Your task to perform on an android device: Show me popular videos on Youtube Image 0: 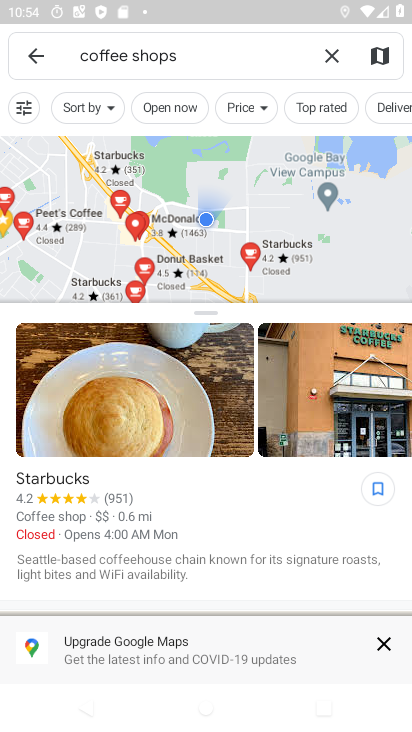
Step 0: press home button
Your task to perform on an android device: Show me popular videos on Youtube Image 1: 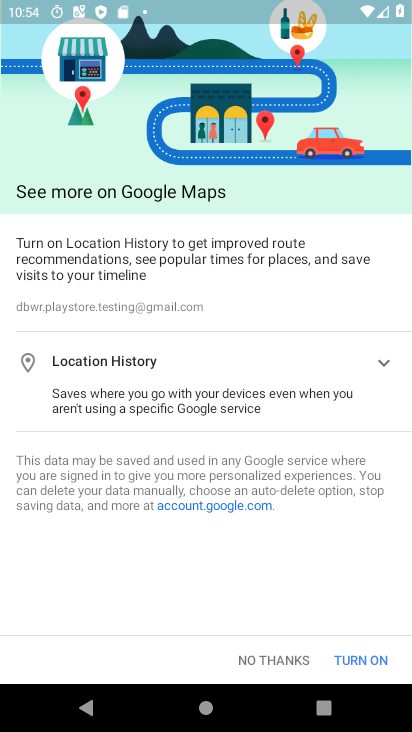
Step 1: click (292, 652)
Your task to perform on an android device: Show me popular videos on Youtube Image 2: 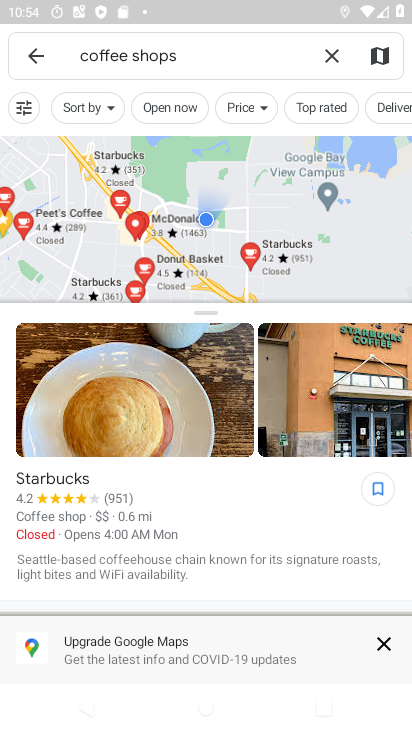
Step 2: press home button
Your task to perform on an android device: Show me popular videos on Youtube Image 3: 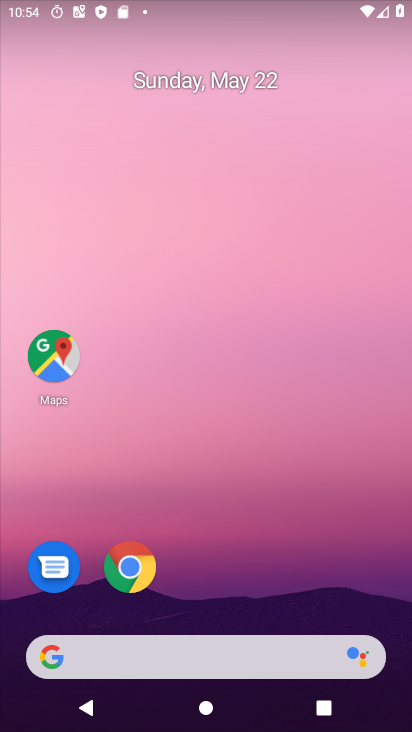
Step 3: drag from (385, 611) to (375, 173)
Your task to perform on an android device: Show me popular videos on Youtube Image 4: 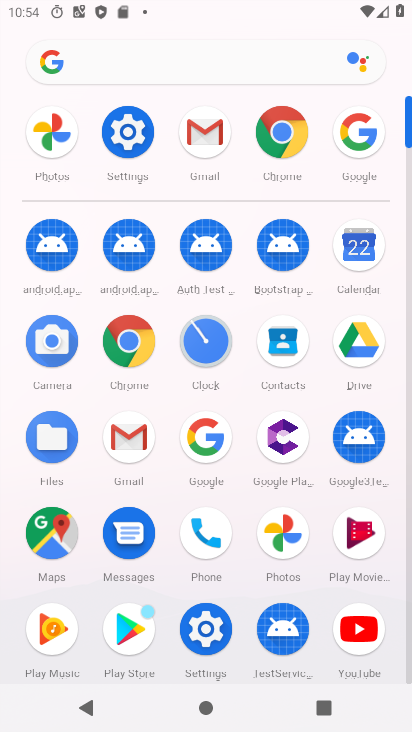
Step 4: click (393, 637)
Your task to perform on an android device: Show me popular videos on Youtube Image 5: 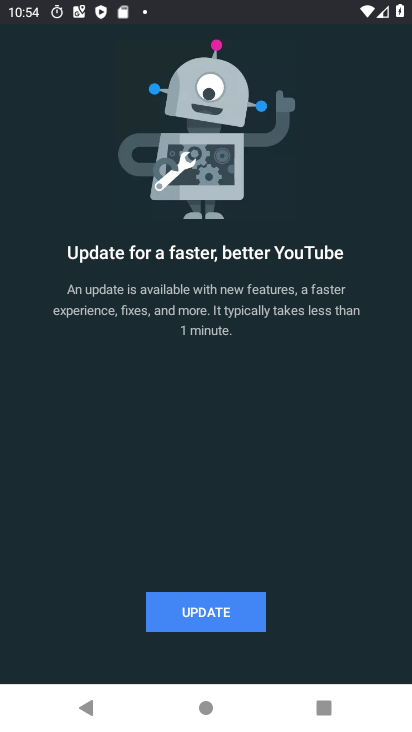
Step 5: click (221, 618)
Your task to perform on an android device: Show me popular videos on Youtube Image 6: 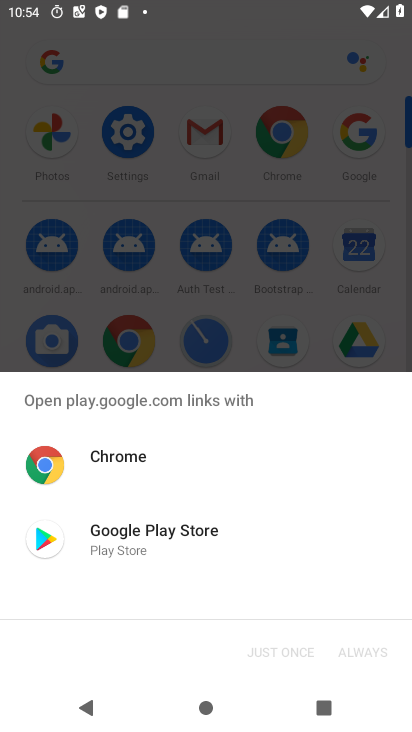
Step 6: click (117, 529)
Your task to perform on an android device: Show me popular videos on Youtube Image 7: 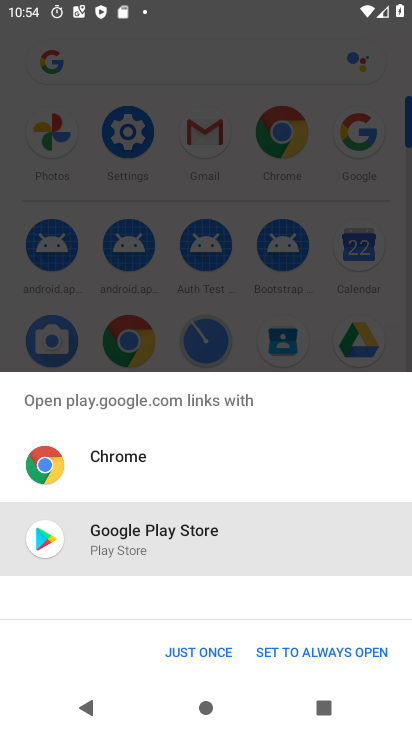
Step 7: click (212, 650)
Your task to perform on an android device: Show me popular videos on Youtube Image 8: 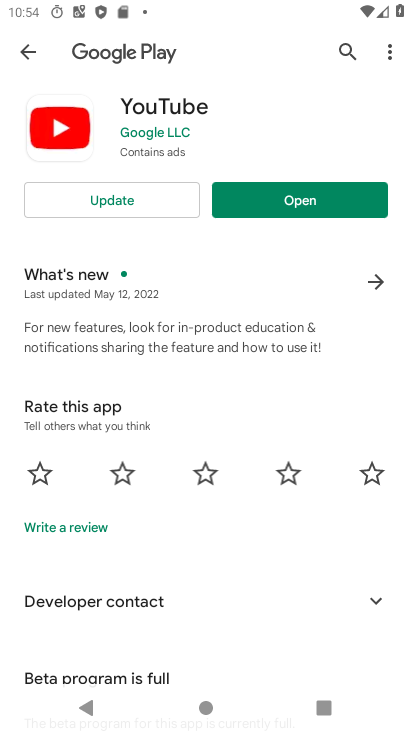
Step 8: click (286, 204)
Your task to perform on an android device: Show me popular videos on Youtube Image 9: 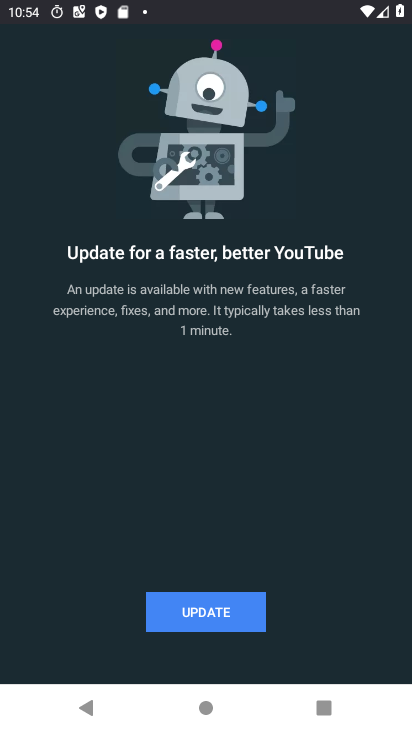
Step 9: click (237, 622)
Your task to perform on an android device: Show me popular videos on Youtube Image 10: 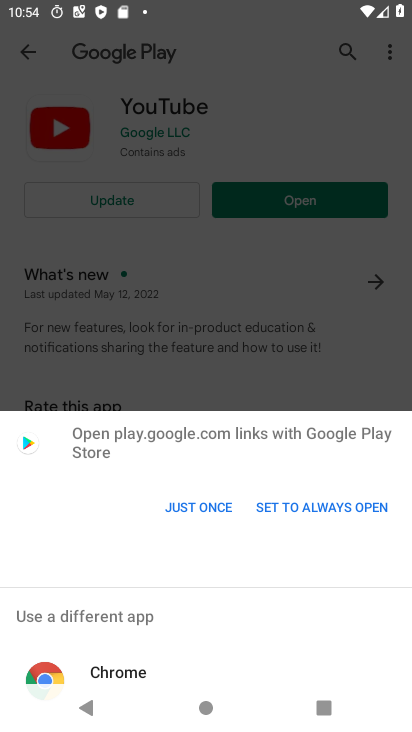
Step 10: drag from (228, 657) to (210, 453)
Your task to perform on an android device: Show me popular videos on Youtube Image 11: 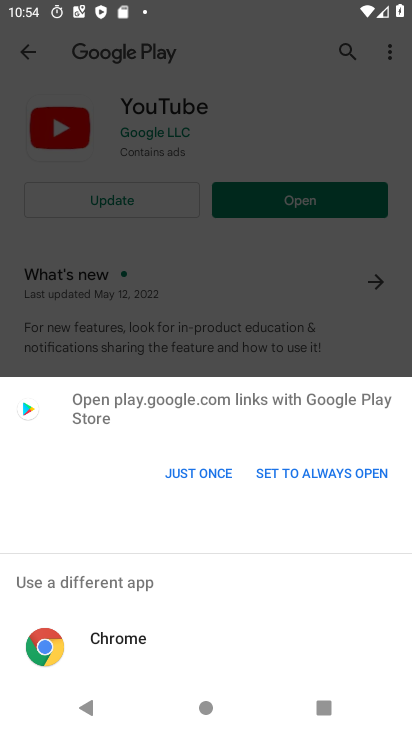
Step 11: click (208, 479)
Your task to perform on an android device: Show me popular videos on Youtube Image 12: 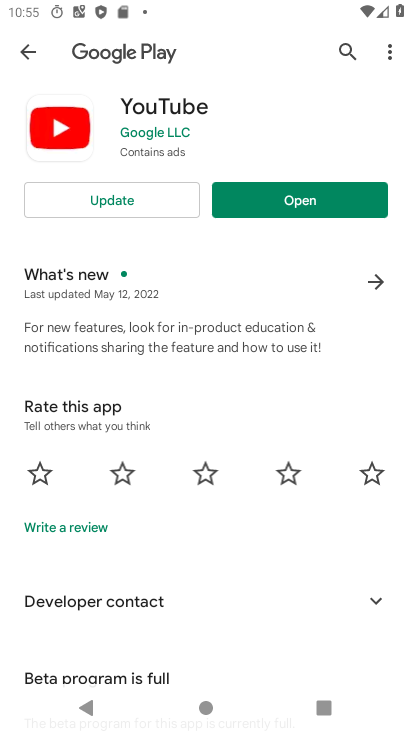
Step 12: click (101, 194)
Your task to perform on an android device: Show me popular videos on Youtube Image 13: 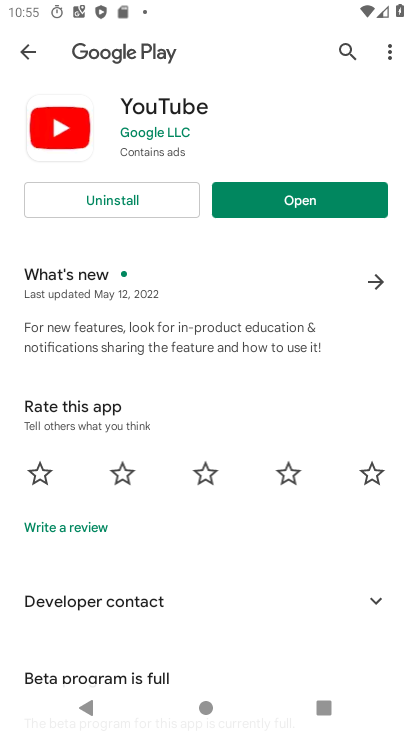
Step 13: click (303, 210)
Your task to perform on an android device: Show me popular videos on Youtube Image 14: 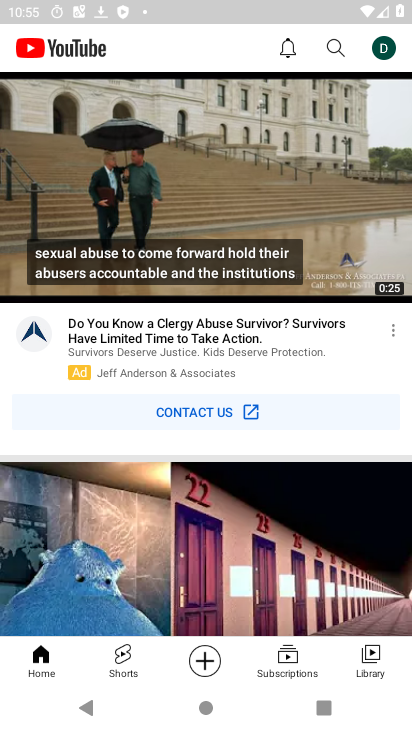
Step 14: task complete